Your task to perform on an android device: Go to privacy settings Image 0: 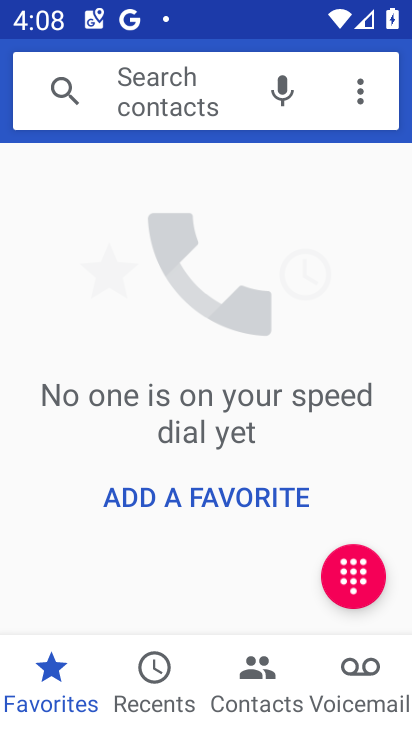
Step 0: press home button
Your task to perform on an android device: Go to privacy settings Image 1: 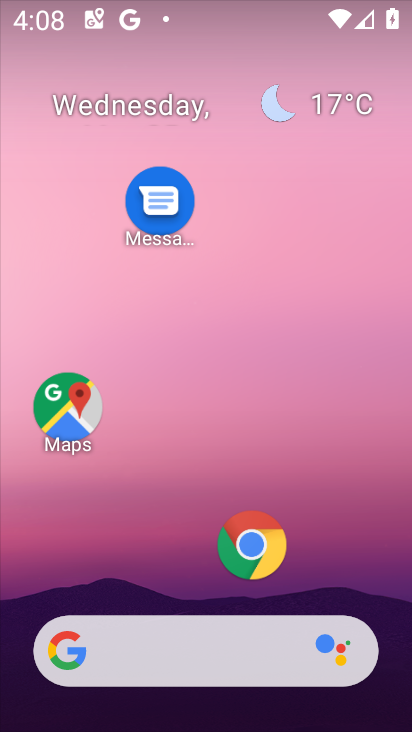
Step 1: drag from (319, 579) to (291, 9)
Your task to perform on an android device: Go to privacy settings Image 2: 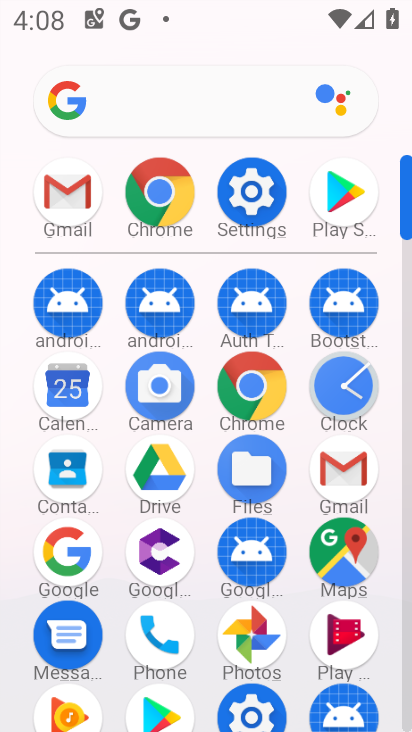
Step 2: click (252, 184)
Your task to perform on an android device: Go to privacy settings Image 3: 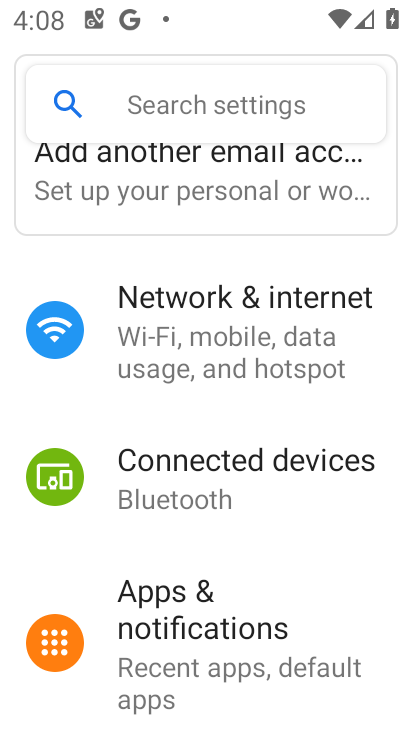
Step 3: drag from (293, 596) to (329, 185)
Your task to perform on an android device: Go to privacy settings Image 4: 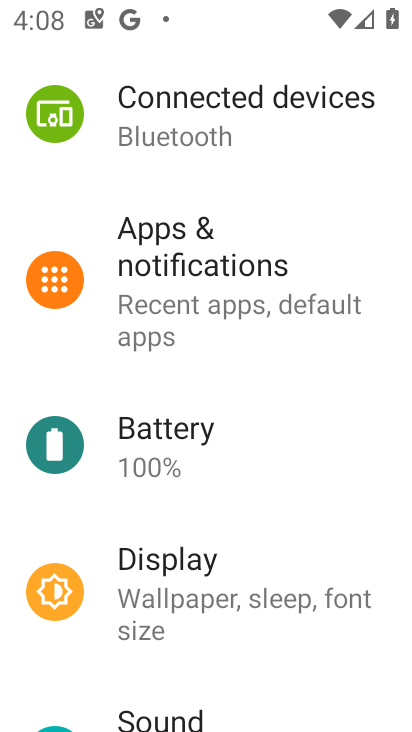
Step 4: drag from (281, 666) to (267, 171)
Your task to perform on an android device: Go to privacy settings Image 5: 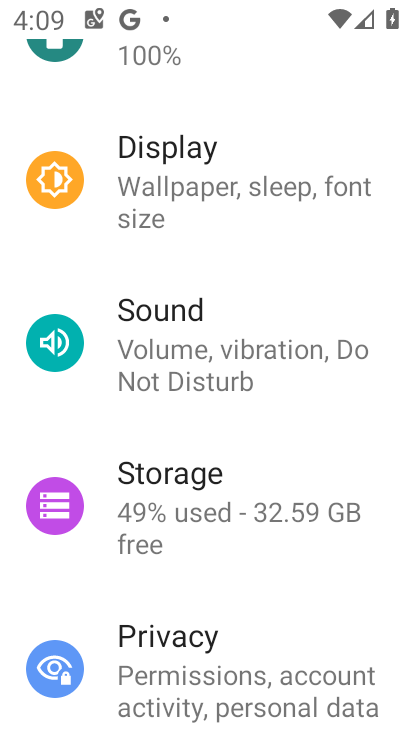
Step 5: click (201, 657)
Your task to perform on an android device: Go to privacy settings Image 6: 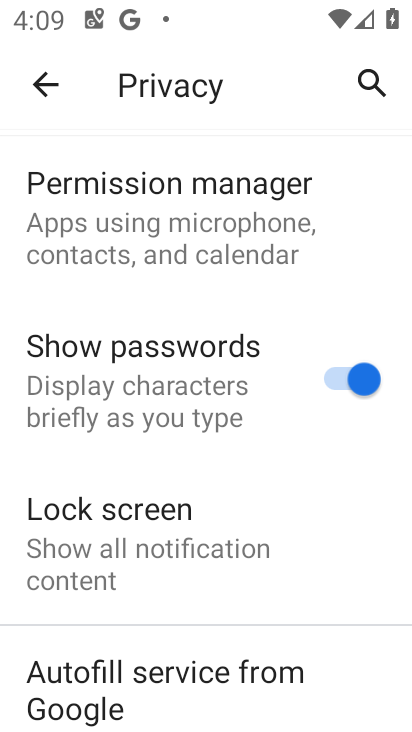
Step 6: task complete